Your task to perform on an android device: Do I have any events this weekend? Image 0: 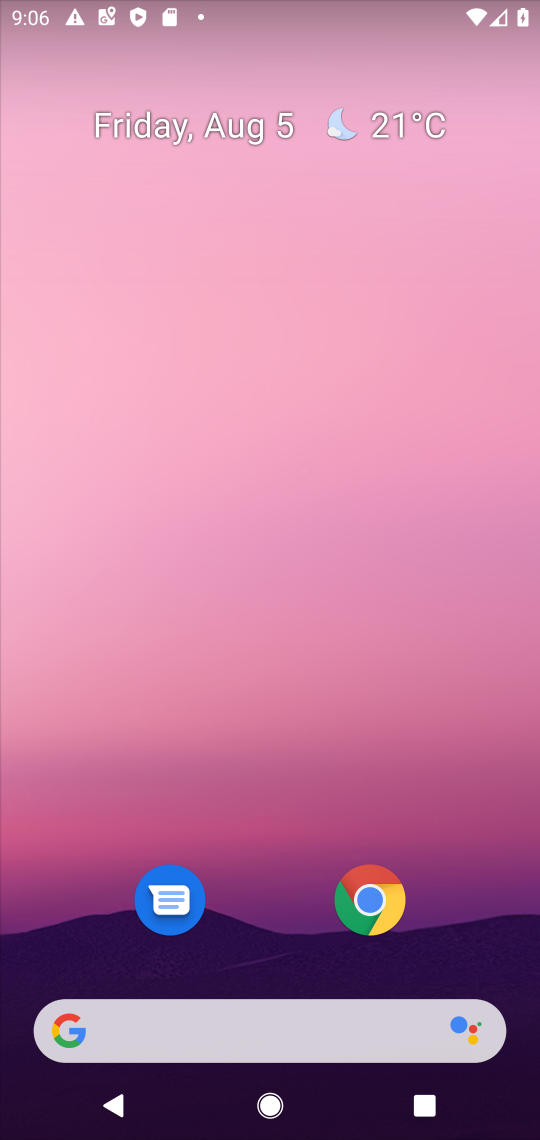
Step 0: press home button
Your task to perform on an android device: Do I have any events this weekend? Image 1: 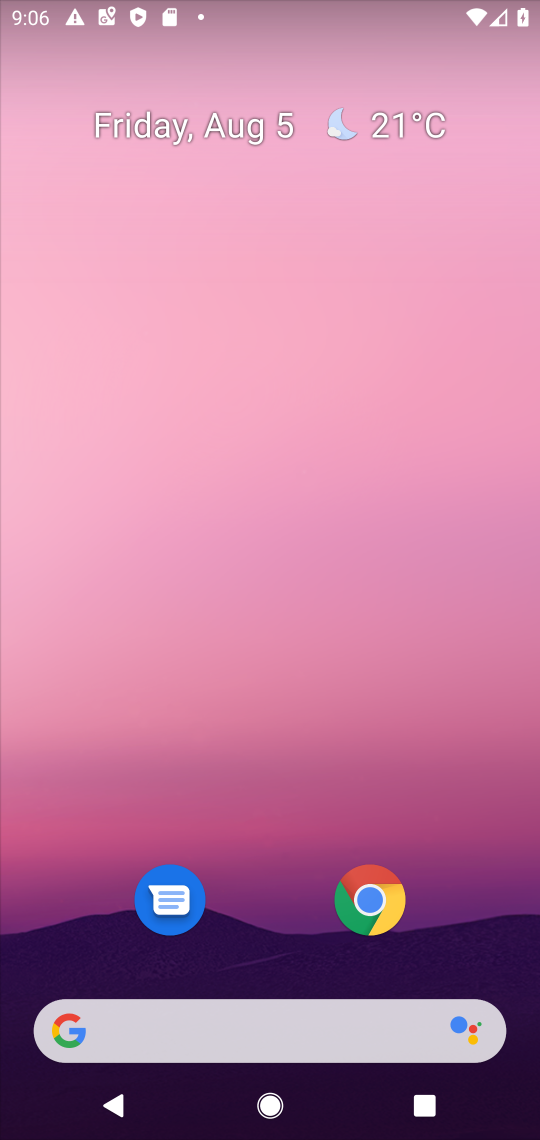
Step 1: drag from (245, 916) to (297, 338)
Your task to perform on an android device: Do I have any events this weekend? Image 2: 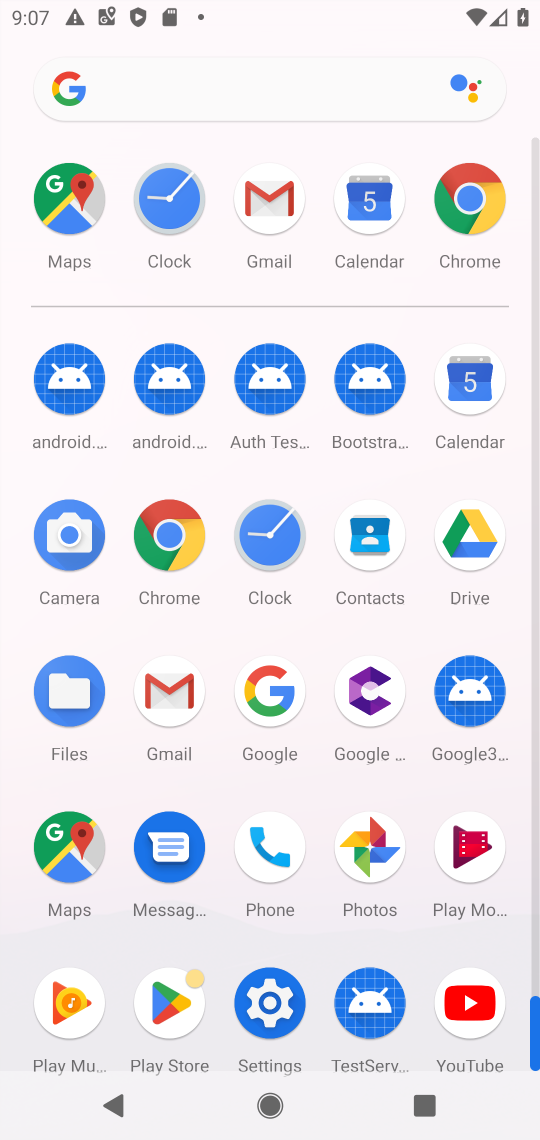
Step 2: click (453, 399)
Your task to perform on an android device: Do I have any events this weekend? Image 3: 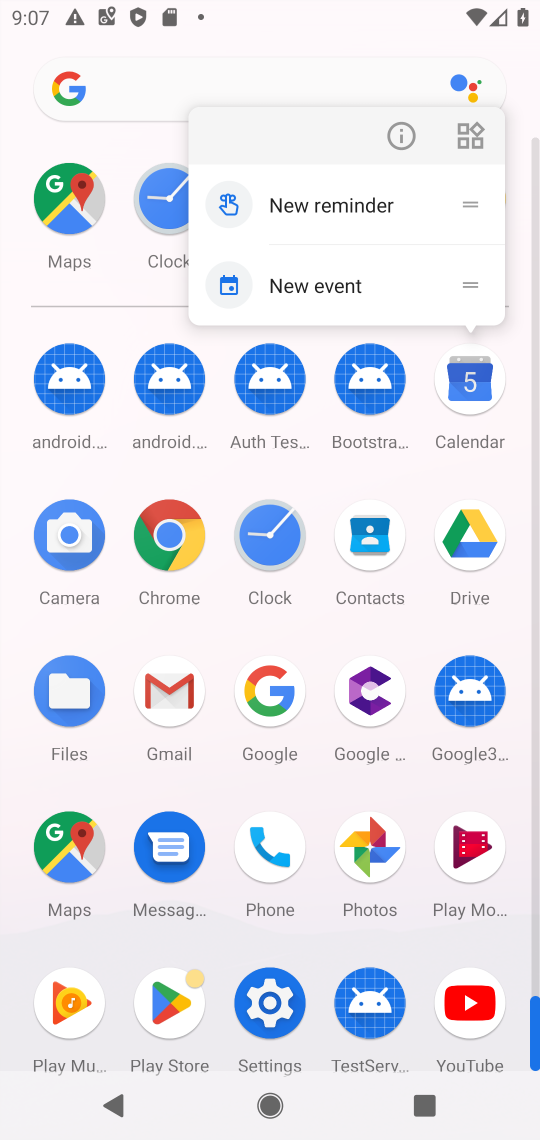
Step 3: click (453, 399)
Your task to perform on an android device: Do I have any events this weekend? Image 4: 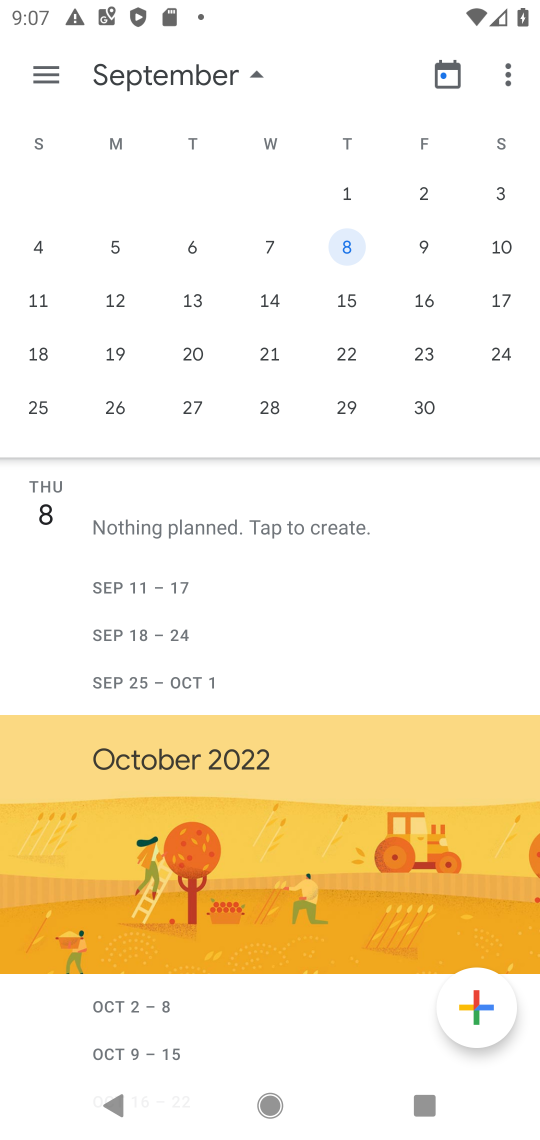
Step 4: drag from (45, 319) to (473, 278)
Your task to perform on an android device: Do I have any events this weekend? Image 5: 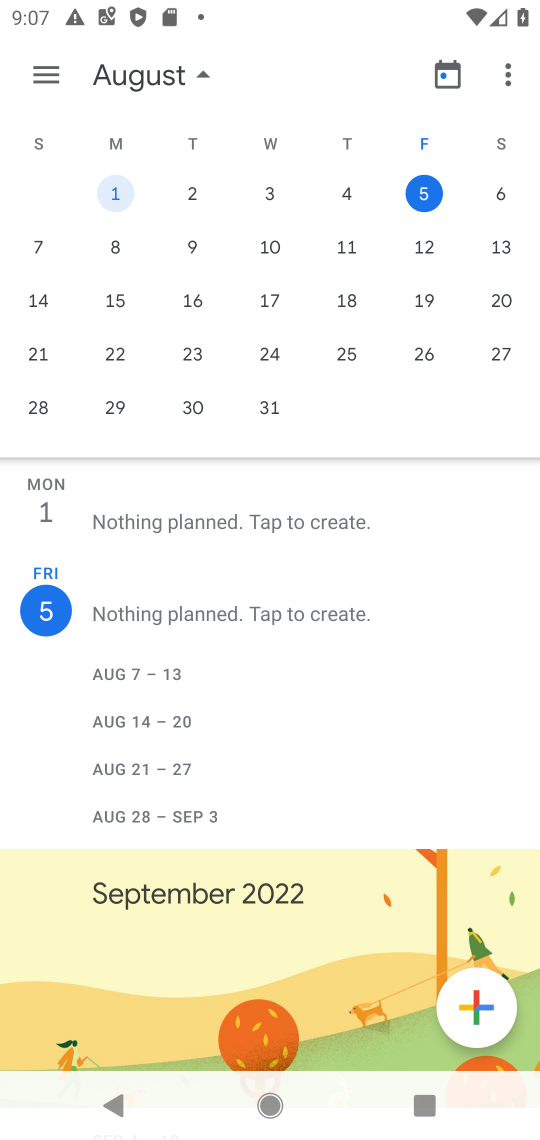
Step 5: drag from (73, 323) to (221, 320)
Your task to perform on an android device: Do I have any events this weekend? Image 6: 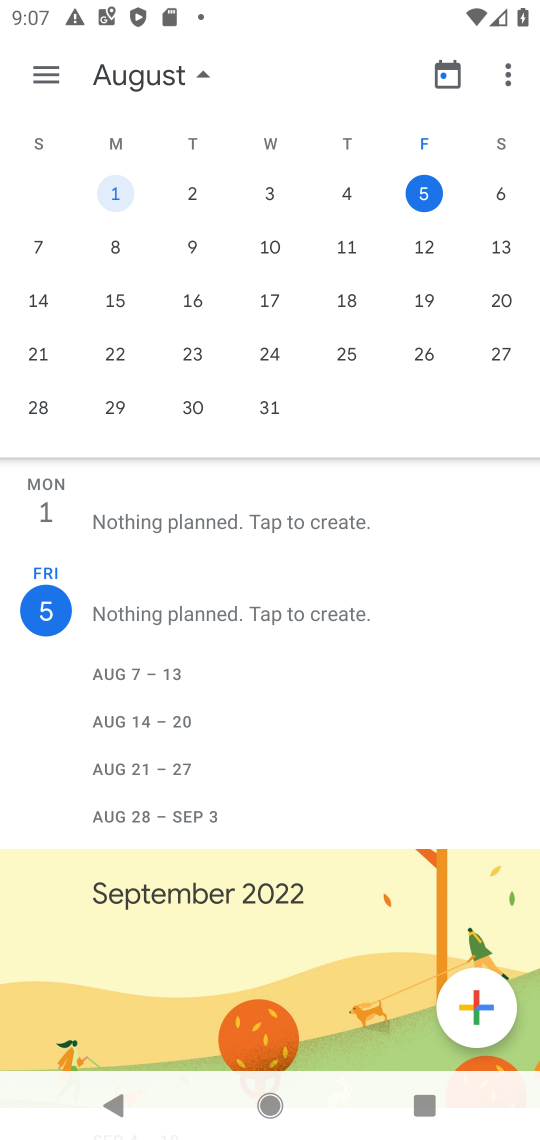
Step 6: click (507, 202)
Your task to perform on an android device: Do I have any events this weekend? Image 7: 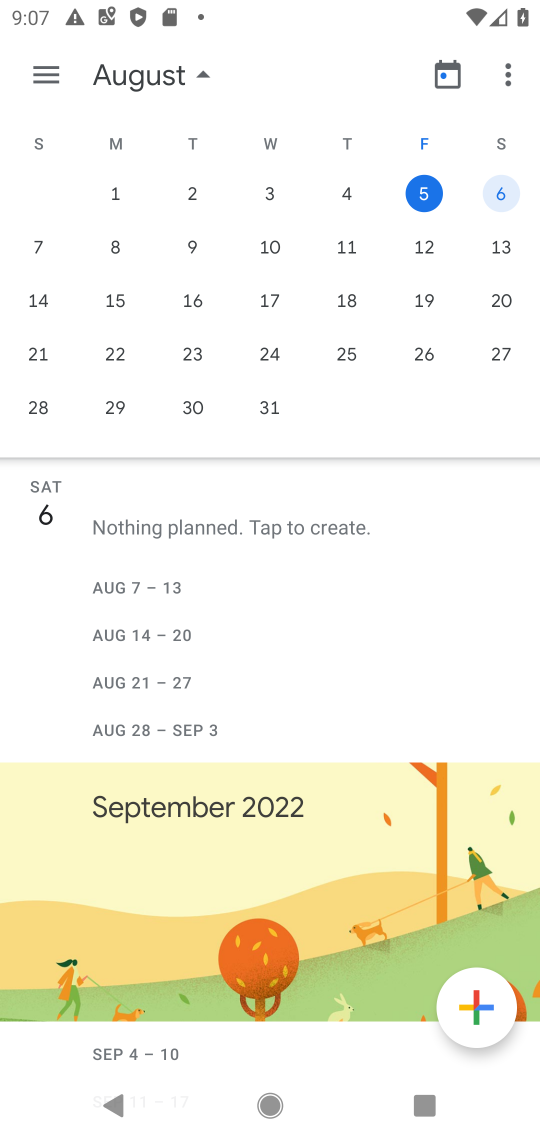
Step 7: task complete